Your task to perform on an android device: Turn on the flashlight Image 0: 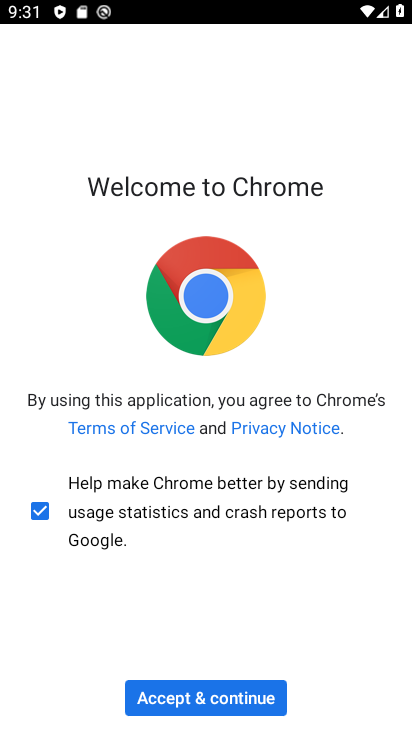
Step 0: press home button
Your task to perform on an android device: Turn on the flashlight Image 1: 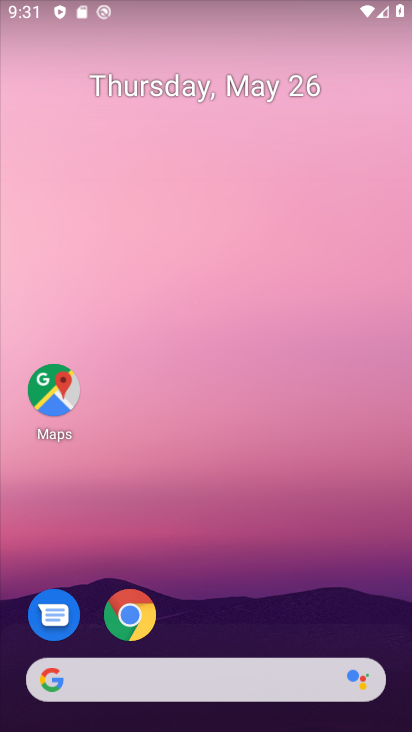
Step 1: drag from (255, 698) to (367, 172)
Your task to perform on an android device: Turn on the flashlight Image 2: 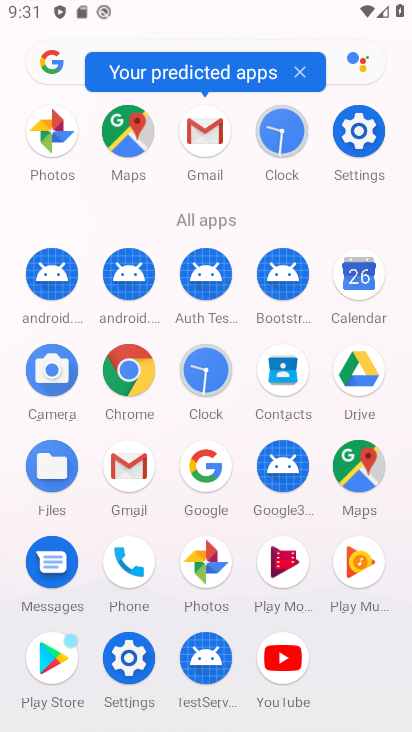
Step 2: click (365, 141)
Your task to perform on an android device: Turn on the flashlight Image 3: 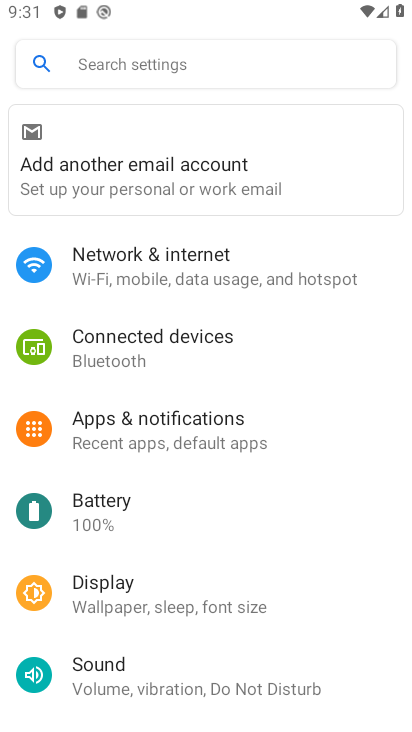
Step 3: click (164, 63)
Your task to perform on an android device: Turn on the flashlight Image 4: 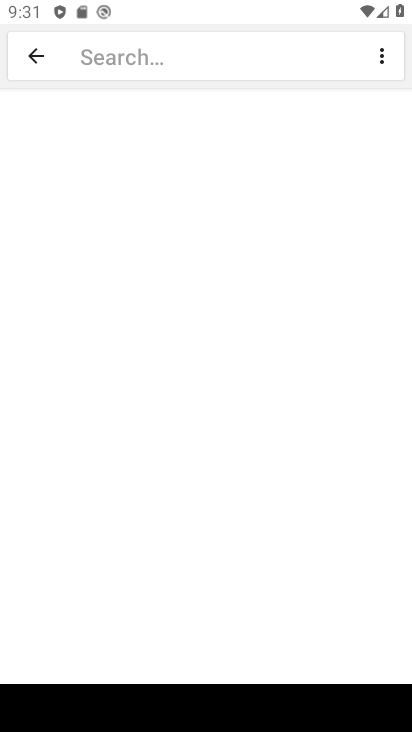
Step 4: drag from (354, 692) to (356, 398)
Your task to perform on an android device: Turn on the flashlight Image 5: 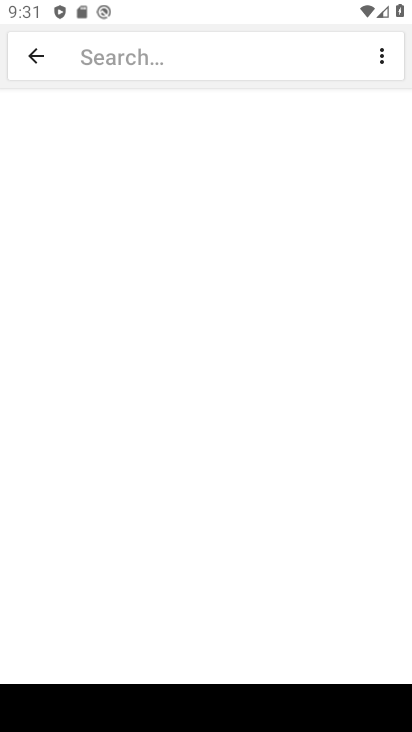
Step 5: drag from (397, 709) to (397, 664)
Your task to perform on an android device: Turn on the flashlight Image 6: 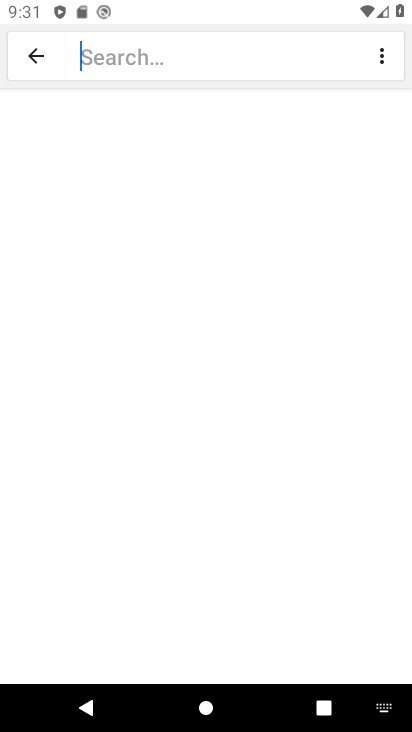
Step 6: click (400, 711)
Your task to perform on an android device: Turn on the flashlight Image 7: 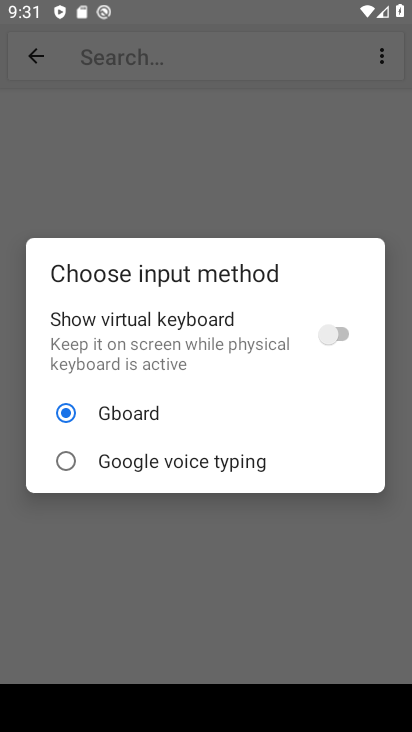
Step 7: click (341, 326)
Your task to perform on an android device: Turn on the flashlight Image 8: 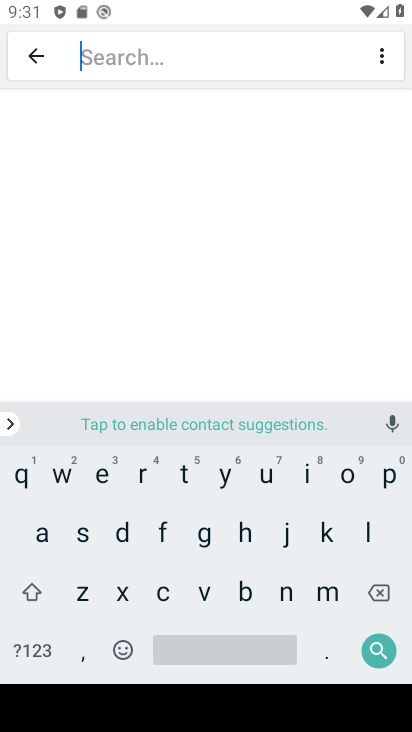
Step 8: click (158, 530)
Your task to perform on an android device: Turn on the flashlight Image 9: 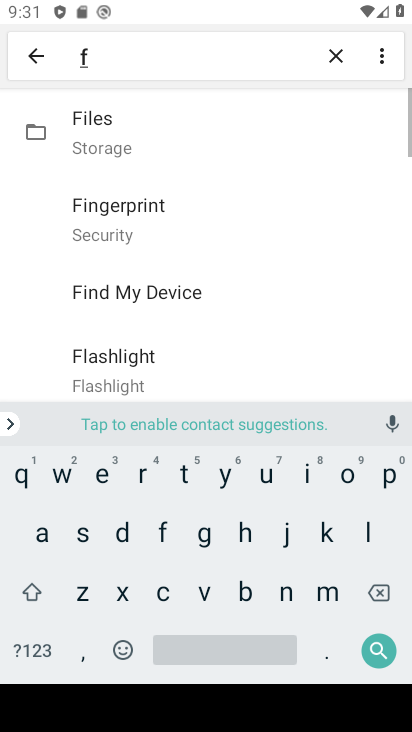
Step 9: click (362, 536)
Your task to perform on an android device: Turn on the flashlight Image 10: 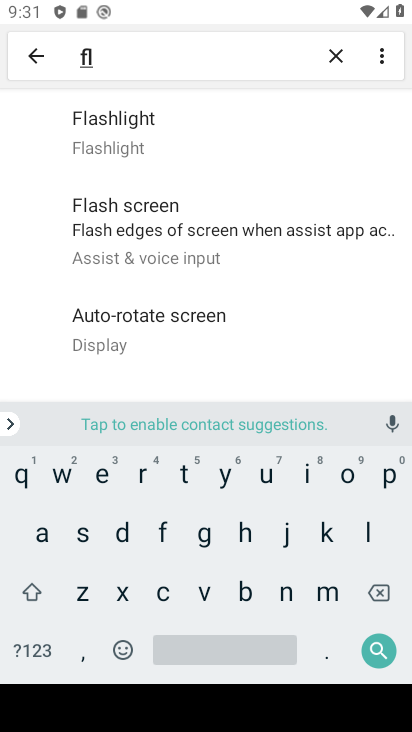
Step 10: click (148, 147)
Your task to perform on an android device: Turn on the flashlight Image 11: 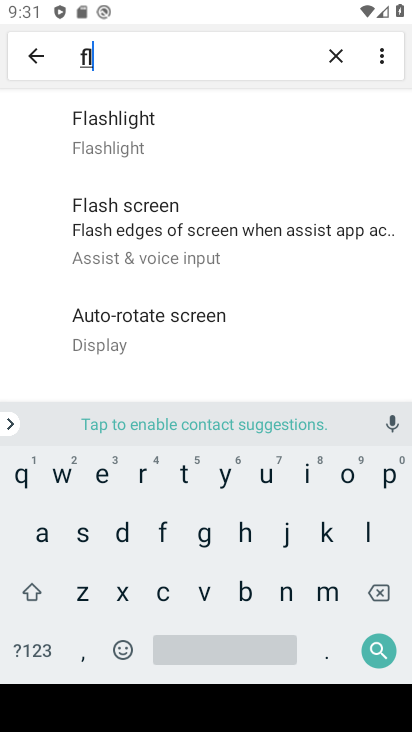
Step 11: task complete